Your task to perform on an android device: manage bookmarks in the chrome app Image 0: 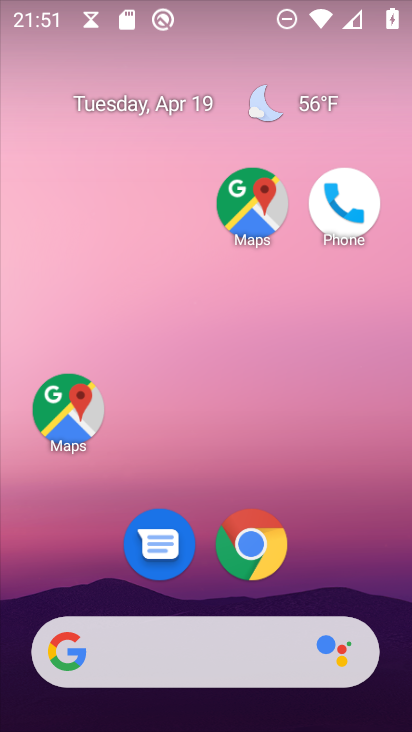
Step 0: drag from (228, 663) to (352, 130)
Your task to perform on an android device: manage bookmarks in the chrome app Image 1: 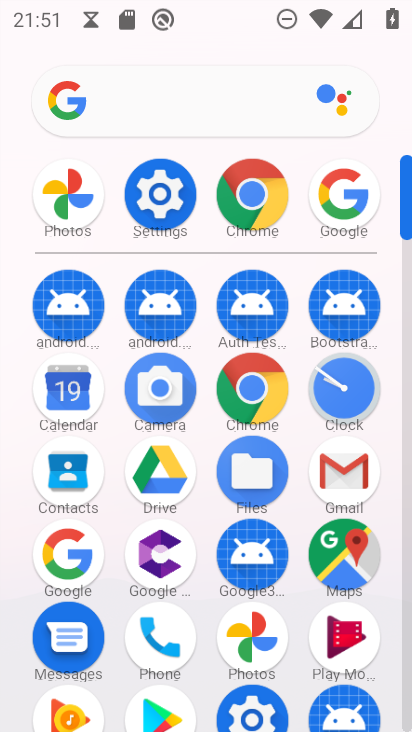
Step 1: click (260, 204)
Your task to perform on an android device: manage bookmarks in the chrome app Image 2: 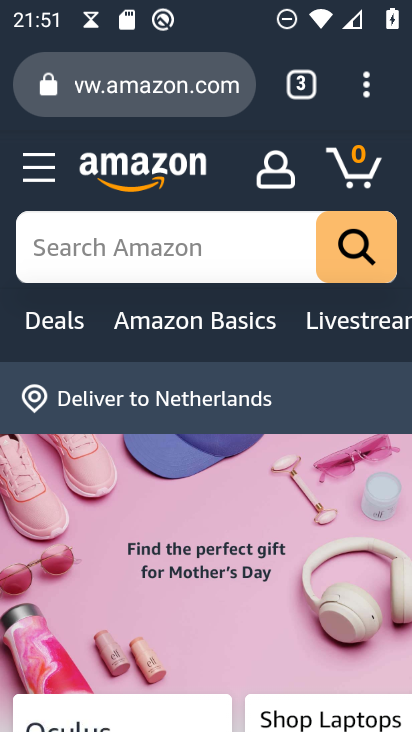
Step 2: click (367, 96)
Your task to perform on an android device: manage bookmarks in the chrome app Image 3: 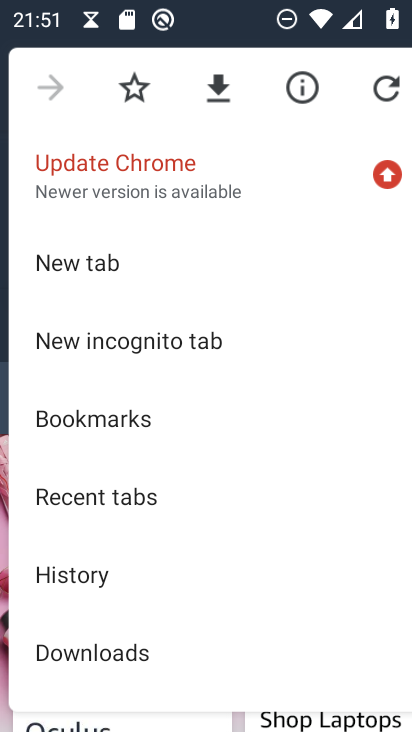
Step 3: click (93, 414)
Your task to perform on an android device: manage bookmarks in the chrome app Image 4: 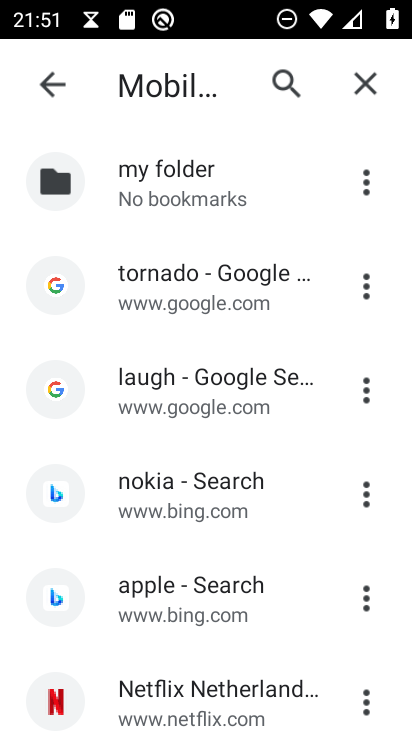
Step 4: click (368, 285)
Your task to perform on an android device: manage bookmarks in the chrome app Image 5: 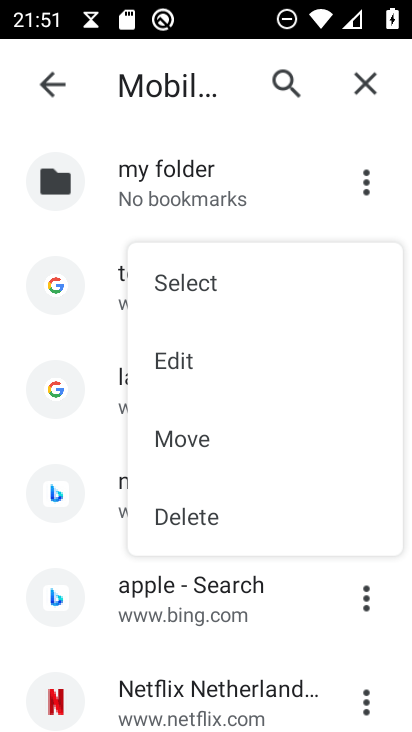
Step 5: click (201, 439)
Your task to perform on an android device: manage bookmarks in the chrome app Image 6: 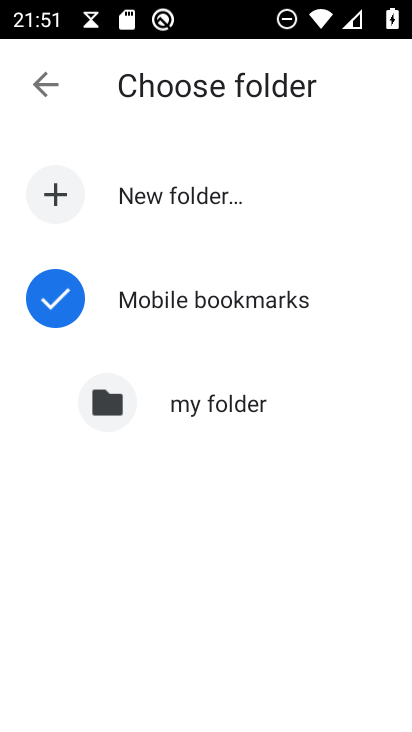
Step 6: click (175, 394)
Your task to perform on an android device: manage bookmarks in the chrome app Image 7: 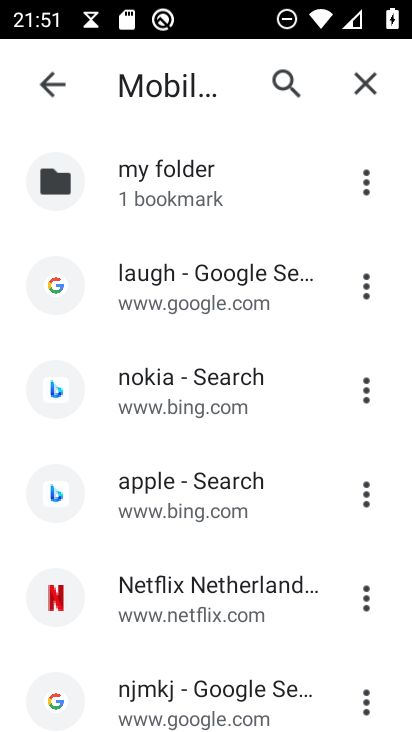
Step 7: task complete